Your task to perform on an android device: turn off priority inbox in the gmail app Image 0: 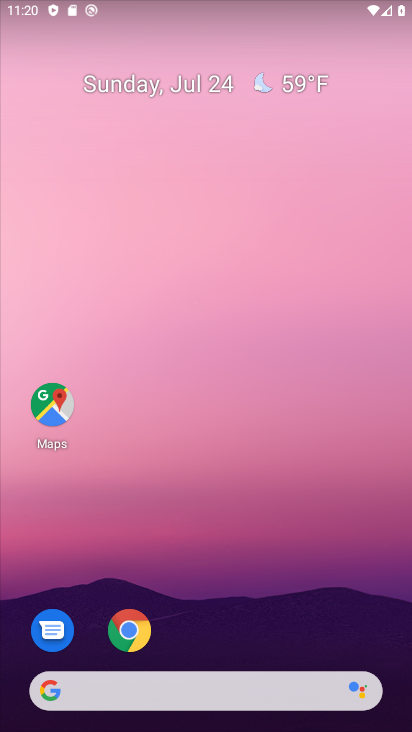
Step 0: drag from (208, 554) to (209, 257)
Your task to perform on an android device: turn off priority inbox in the gmail app Image 1: 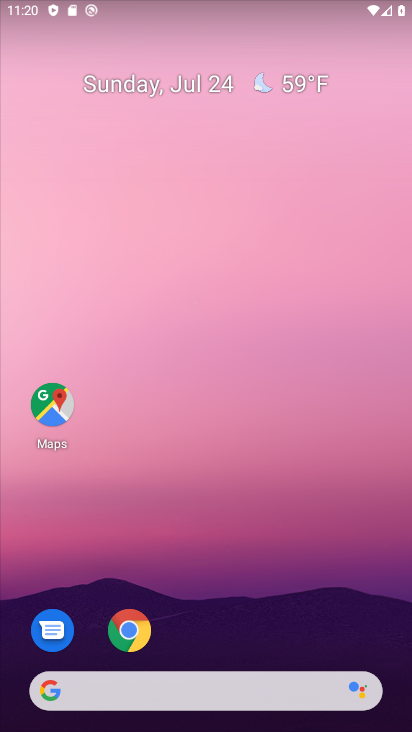
Step 1: drag from (243, 262) to (243, 140)
Your task to perform on an android device: turn off priority inbox in the gmail app Image 2: 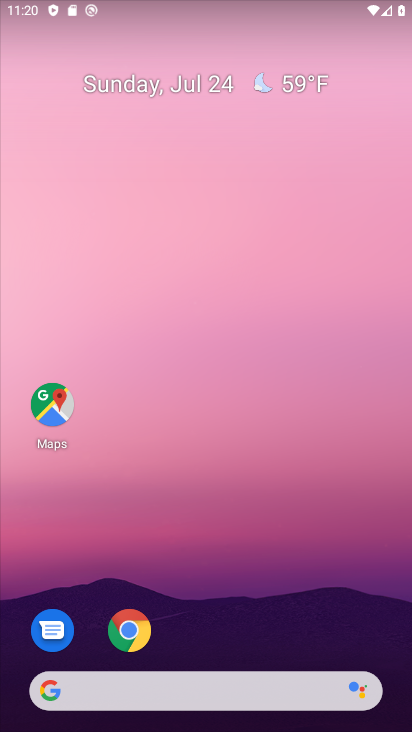
Step 2: drag from (247, 668) to (232, 125)
Your task to perform on an android device: turn off priority inbox in the gmail app Image 3: 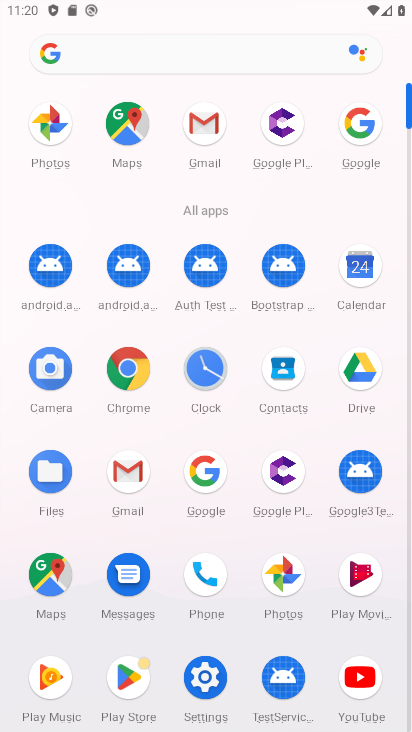
Step 3: click (142, 472)
Your task to perform on an android device: turn off priority inbox in the gmail app Image 4: 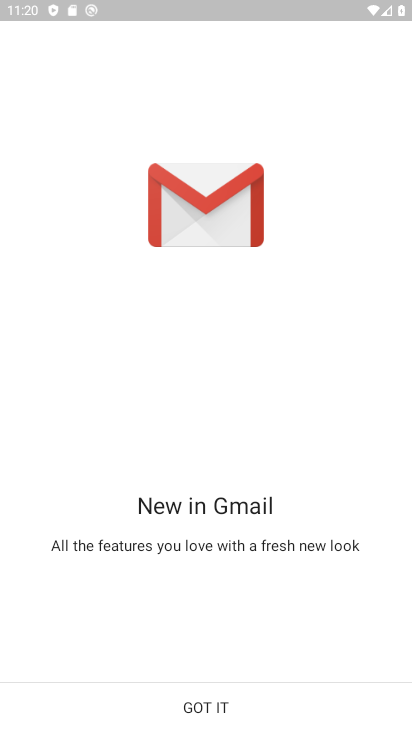
Step 4: click (180, 703)
Your task to perform on an android device: turn off priority inbox in the gmail app Image 5: 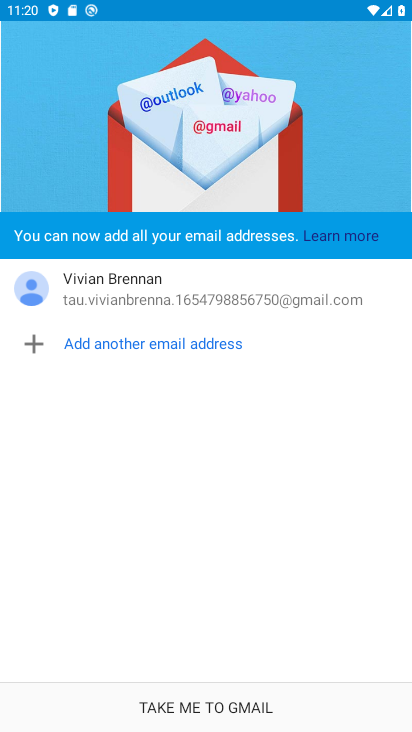
Step 5: click (180, 703)
Your task to perform on an android device: turn off priority inbox in the gmail app Image 6: 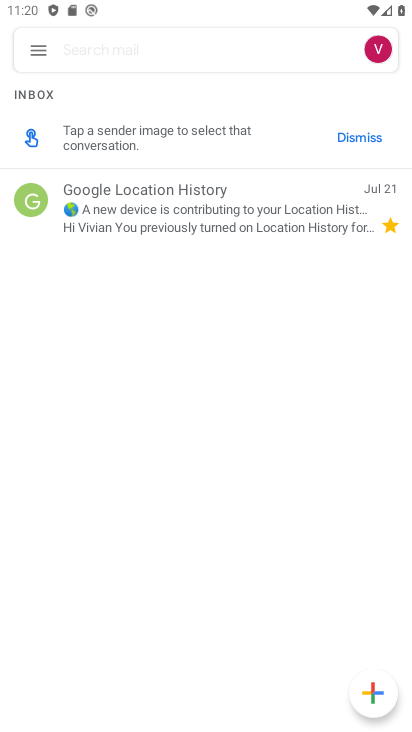
Step 6: click (32, 44)
Your task to perform on an android device: turn off priority inbox in the gmail app Image 7: 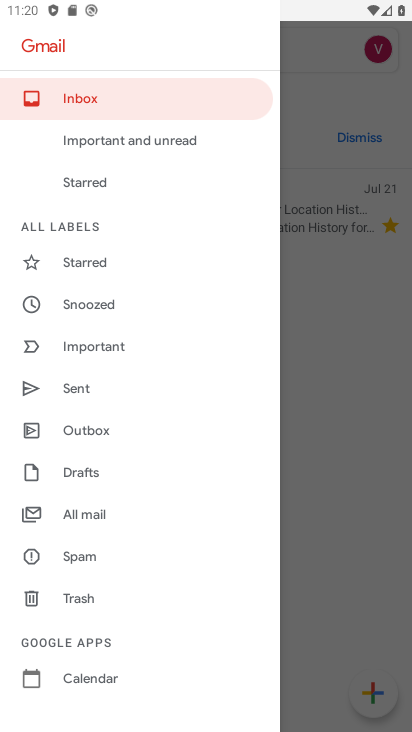
Step 7: drag from (82, 686) to (110, 194)
Your task to perform on an android device: turn off priority inbox in the gmail app Image 8: 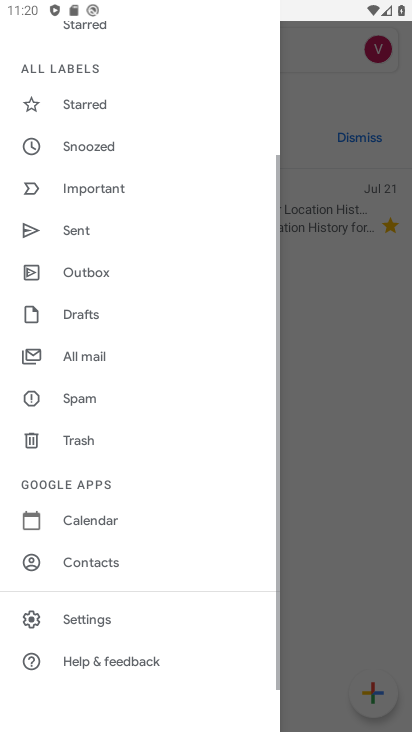
Step 8: click (68, 613)
Your task to perform on an android device: turn off priority inbox in the gmail app Image 9: 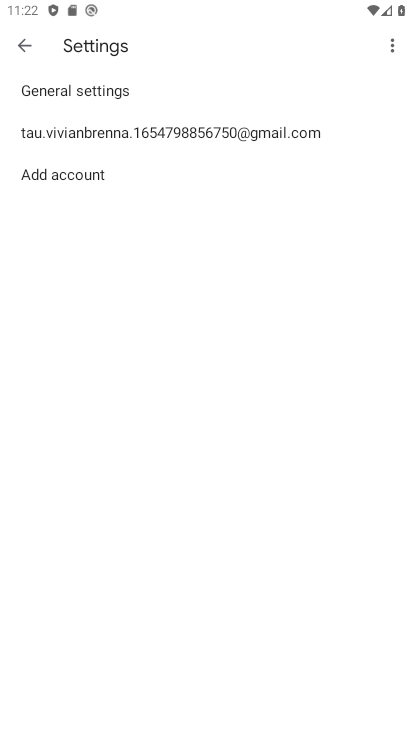
Step 9: click (67, 124)
Your task to perform on an android device: turn off priority inbox in the gmail app Image 10: 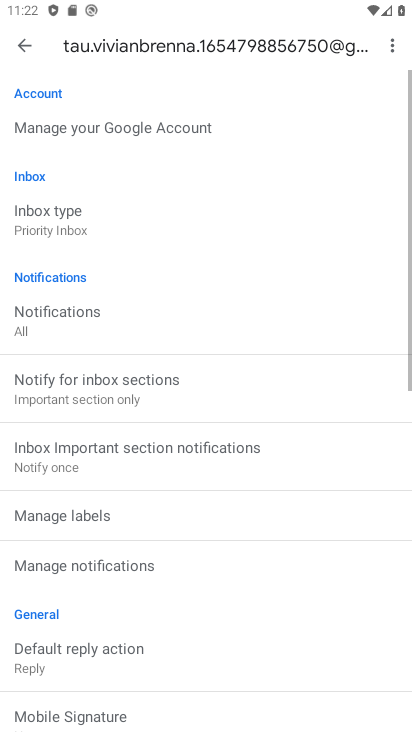
Step 10: click (71, 215)
Your task to perform on an android device: turn off priority inbox in the gmail app Image 11: 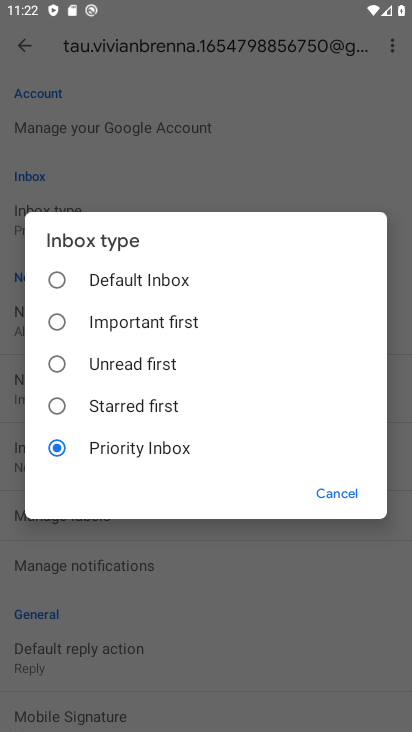
Step 11: click (81, 323)
Your task to perform on an android device: turn off priority inbox in the gmail app Image 12: 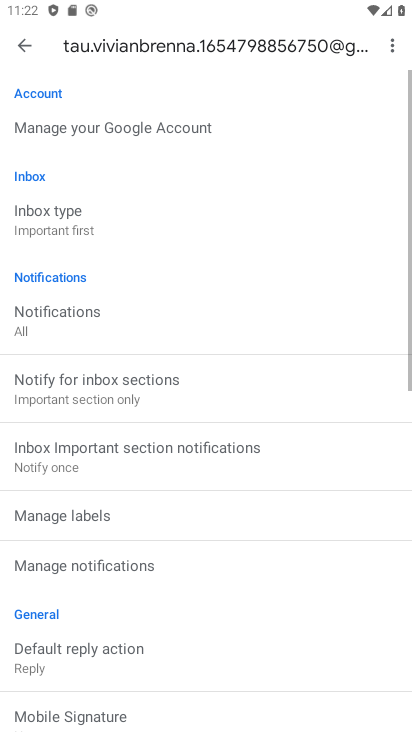
Step 12: task complete